Your task to perform on an android device: Open my contact list Image 0: 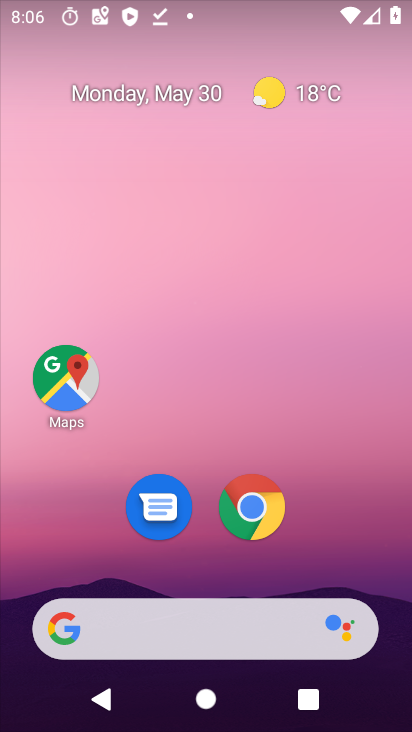
Step 0: drag from (375, 539) to (348, 125)
Your task to perform on an android device: Open my contact list Image 1: 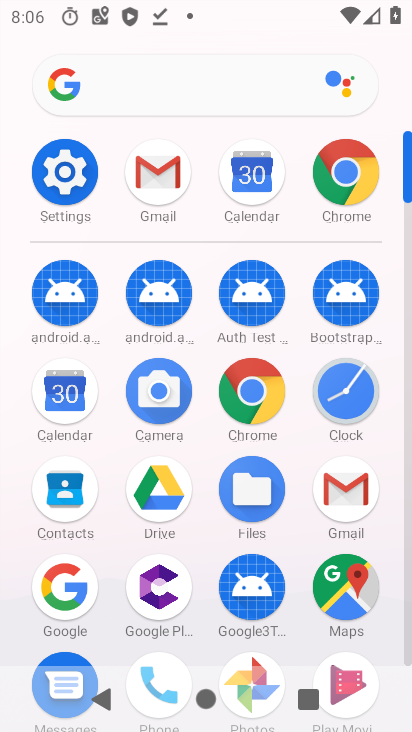
Step 1: click (85, 489)
Your task to perform on an android device: Open my contact list Image 2: 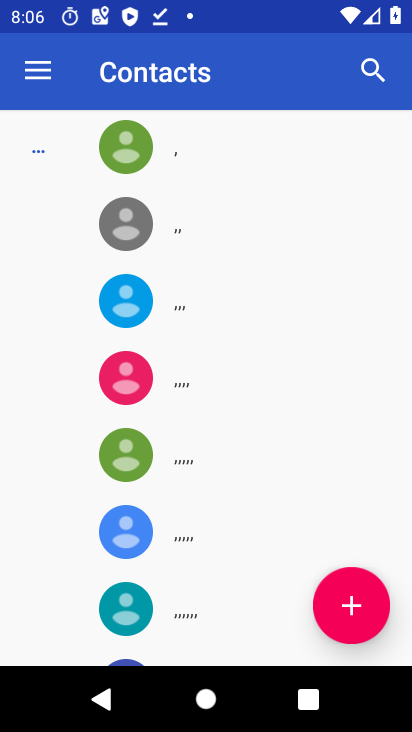
Step 2: task complete